Your task to perform on an android device: turn smart compose on in the gmail app Image 0: 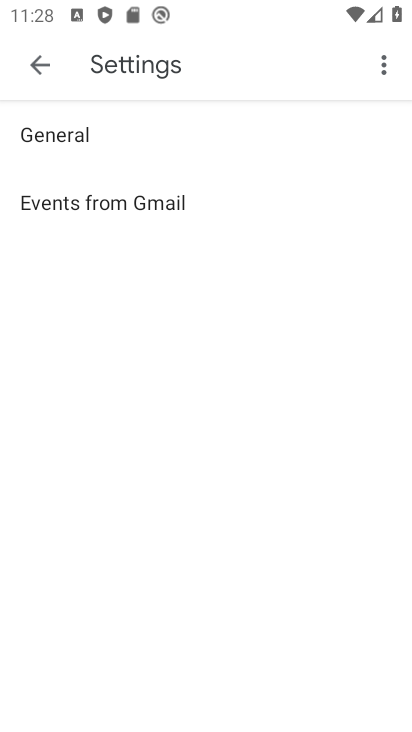
Step 0: click (33, 54)
Your task to perform on an android device: turn smart compose on in the gmail app Image 1: 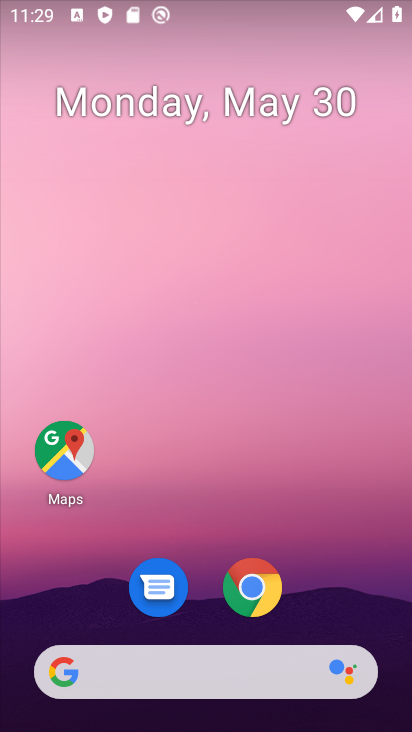
Step 1: click (37, 70)
Your task to perform on an android device: turn smart compose on in the gmail app Image 2: 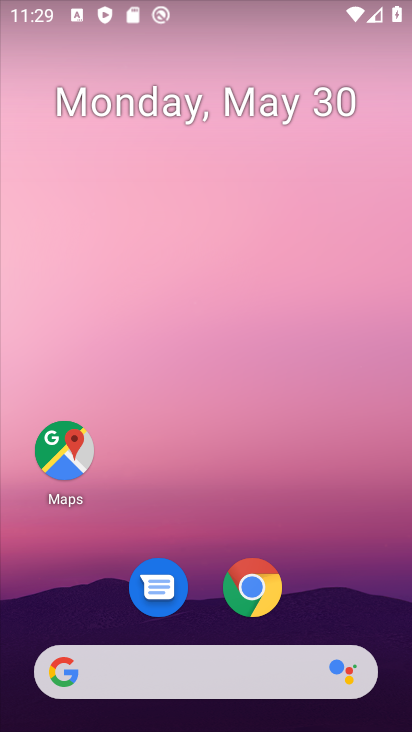
Step 2: click (225, 184)
Your task to perform on an android device: turn smart compose on in the gmail app Image 3: 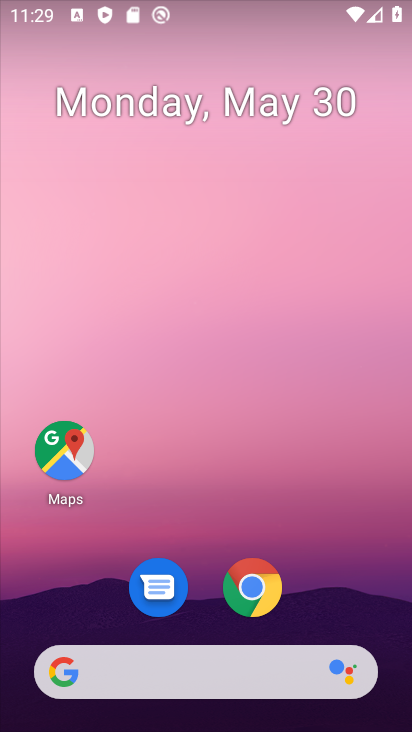
Step 3: click (277, 309)
Your task to perform on an android device: turn smart compose on in the gmail app Image 4: 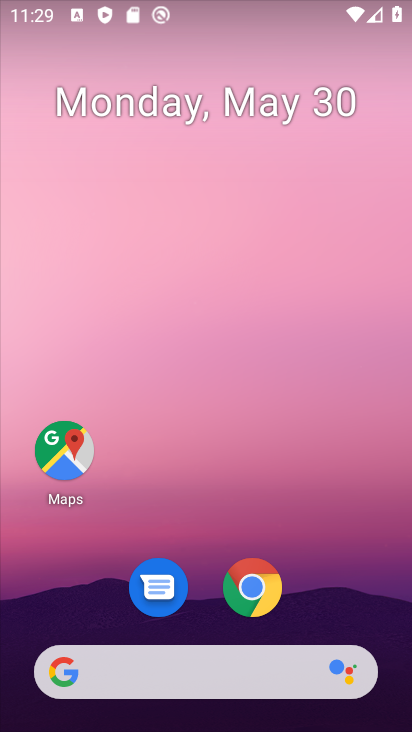
Step 4: click (188, 173)
Your task to perform on an android device: turn smart compose on in the gmail app Image 5: 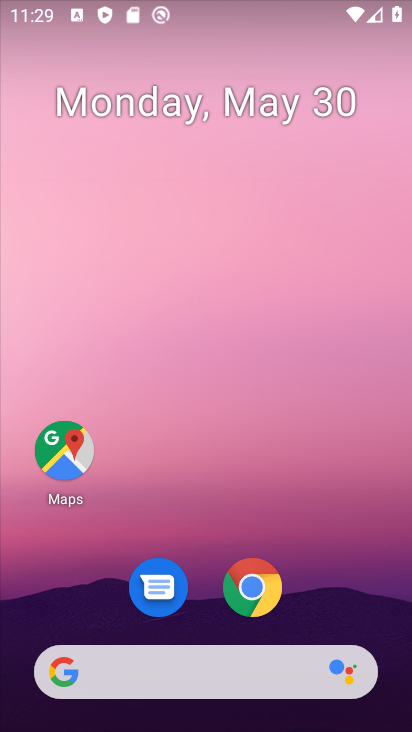
Step 5: drag from (199, 622) to (245, 141)
Your task to perform on an android device: turn smart compose on in the gmail app Image 6: 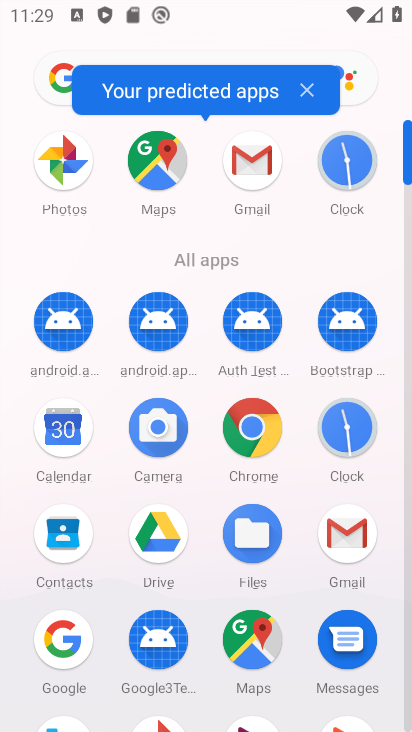
Step 6: click (245, 144)
Your task to perform on an android device: turn smart compose on in the gmail app Image 7: 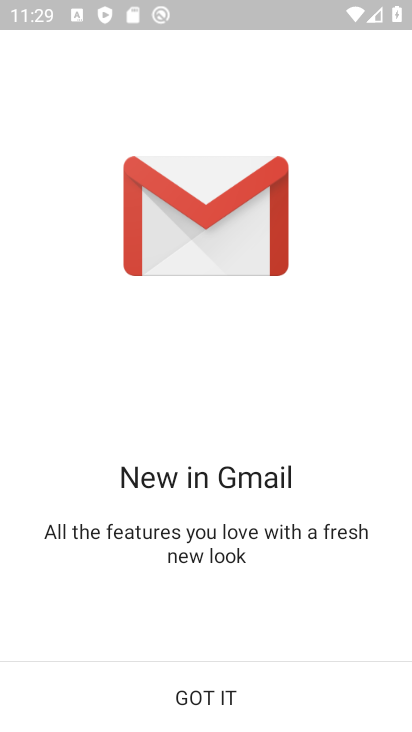
Step 7: click (372, 712)
Your task to perform on an android device: turn smart compose on in the gmail app Image 8: 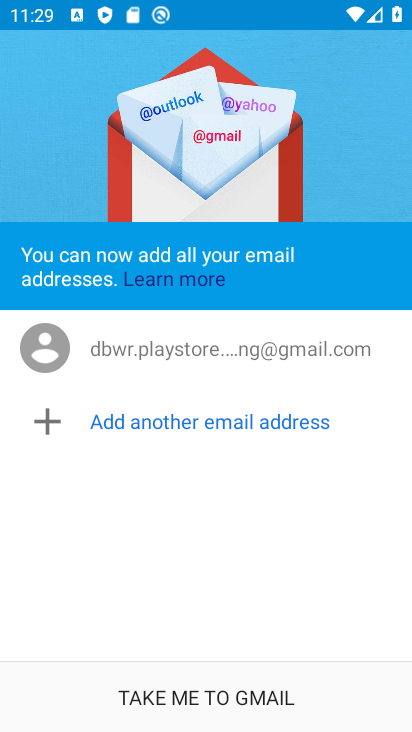
Step 8: click (308, 684)
Your task to perform on an android device: turn smart compose on in the gmail app Image 9: 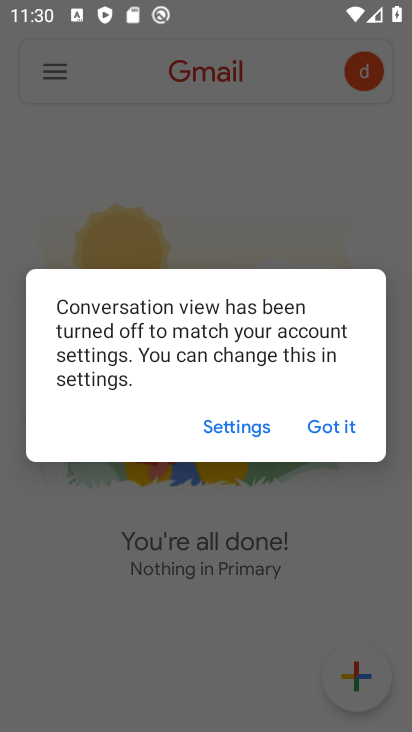
Step 9: click (307, 432)
Your task to perform on an android device: turn smart compose on in the gmail app Image 10: 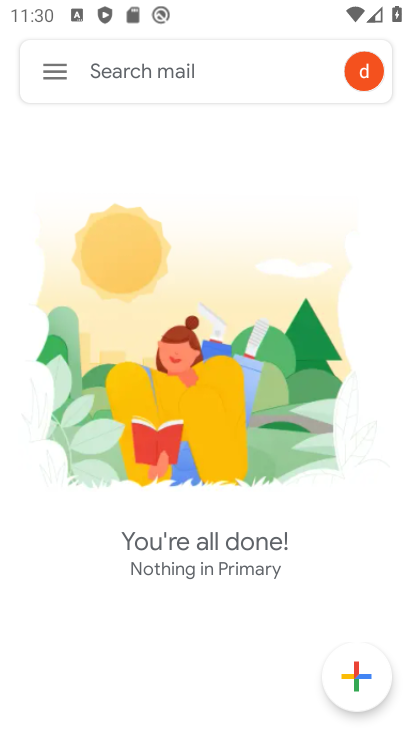
Step 10: click (72, 68)
Your task to perform on an android device: turn smart compose on in the gmail app Image 11: 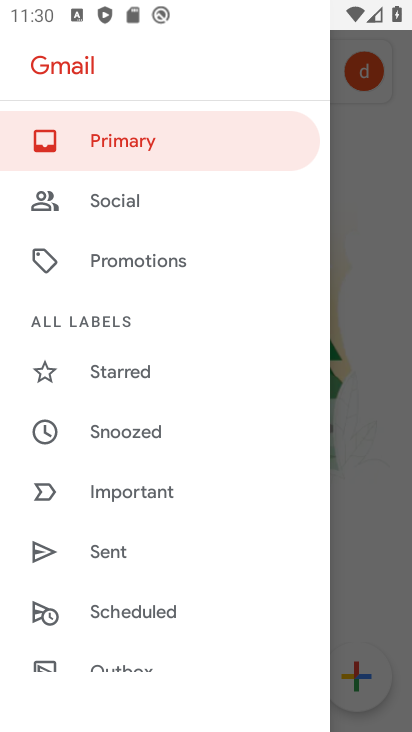
Step 11: drag from (125, 631) to (136, 236)
Your task to perform on an android device: turn smart compose on in the gmail app Image 12: 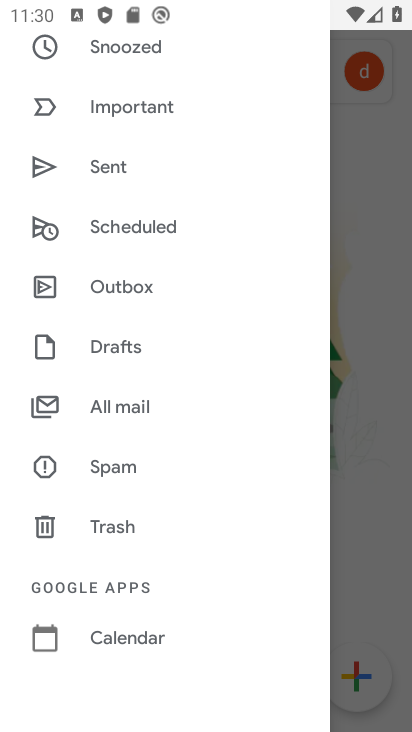
Step 12: drag from (184, 192) to (125, 653)
Your task to perform on an android device: turn smart compose on in the gmail app Image 13: 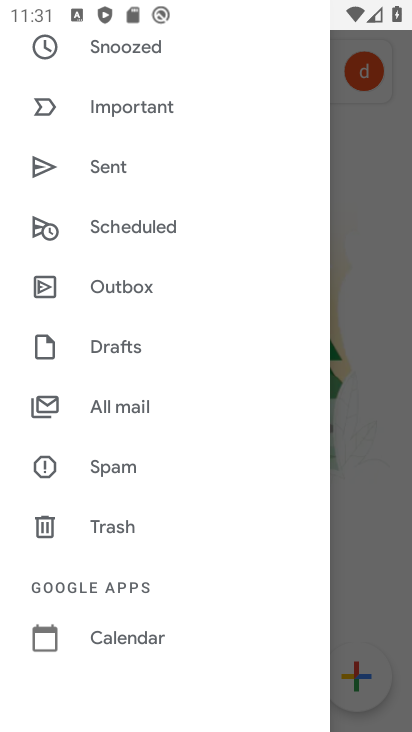
Step 13: drag from (246, 132) to (251, 524)
Your task to perform on an android device: turn smart compose on in the gmail app Image 14: 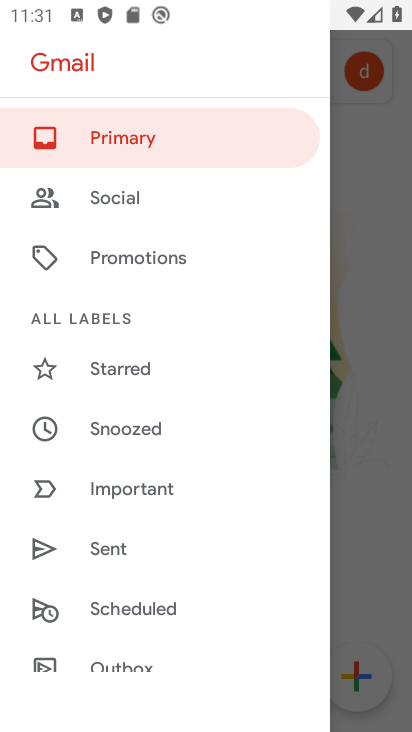
Step 14: drag from (150, 541) to (208, 204)
Your task to perform on an android device: turn smart compose on in the gmail app Image 15: 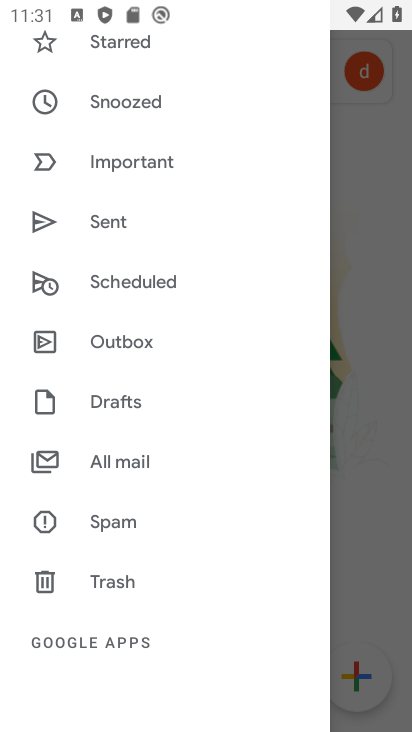
Step 15: drag from (116, 673) to (176, 316)
Your task to perform on an android device: turn smart compose on in the gmail app Image 16: 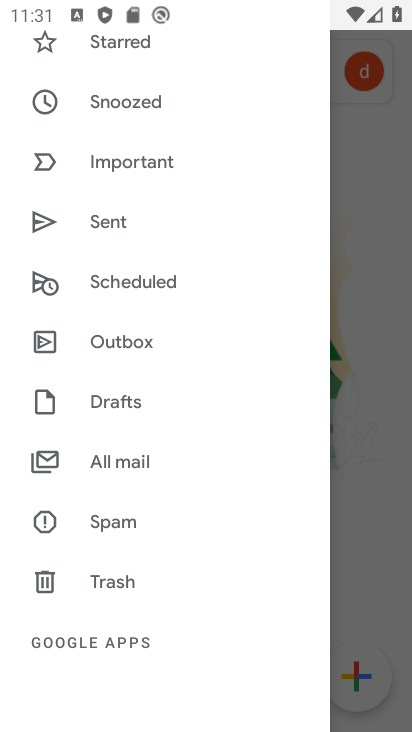
Step 16: drag from (166, 532) to (253, 99)
Your task to perform on an android device: turn smart compose on in the gmail app Image 17: 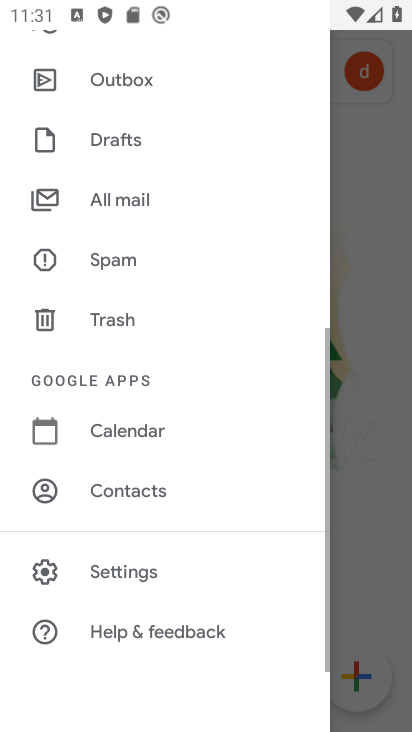
Step 17: click (169, 575)
Your task to perform on an android device: turn smart compose on in the gmail app Image 18: 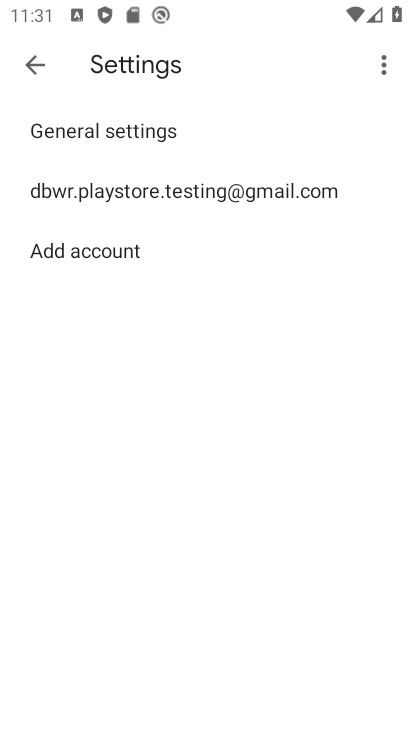
Step 18: click (255, 195)
Your task to perform on an android device: turn smart compose on in the gmail app Image 19: 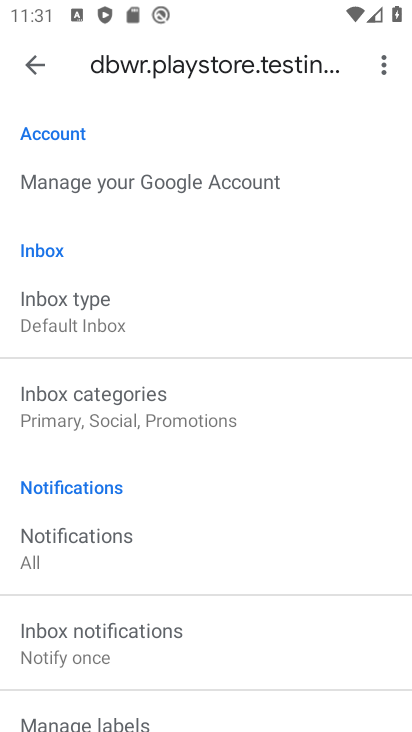
Step 19: task complete